Your task to perform on an android device: Show me popular games on the Play Store Image 0: 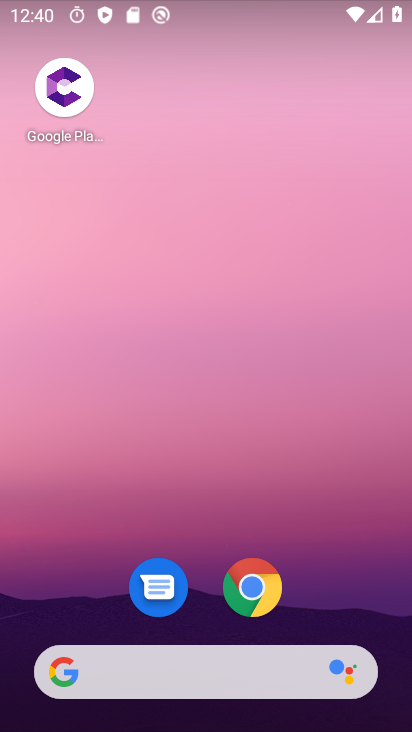
Step 0: drag from (201, 726) to (199, 120)
Your task to perform on an android device: Show me popular games on the Play Store Image 1: 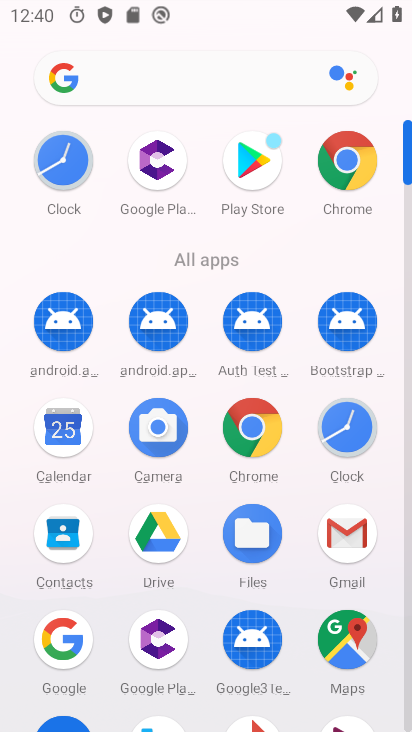
Step 1: click (252, 157)
Your task to perform on an android device: Show me popular games on the Play Store Image 2: 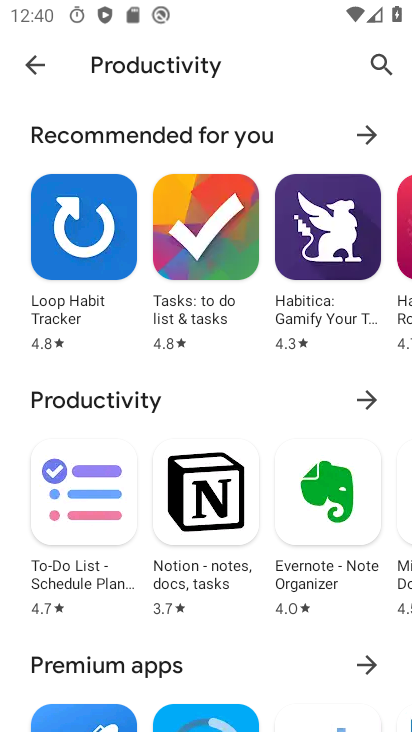
Step 2: click (34, 66)
Your task to perform on an android device: Show me popular games on the Play Store Image 3: 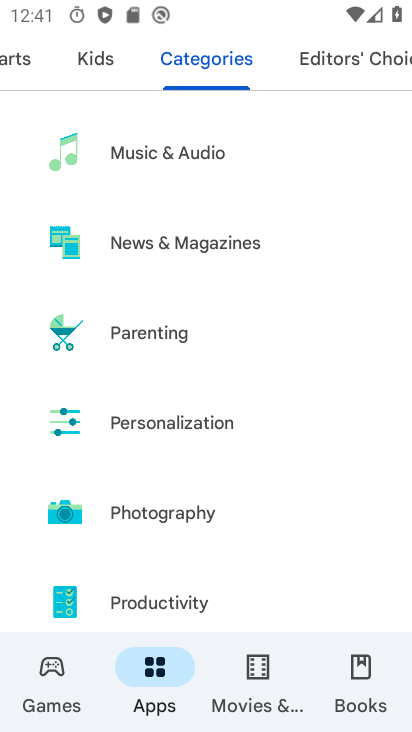
Step 3: click (49, 678)
Your task to perform on an android device: Show me popular games on the Play Store Image 4: 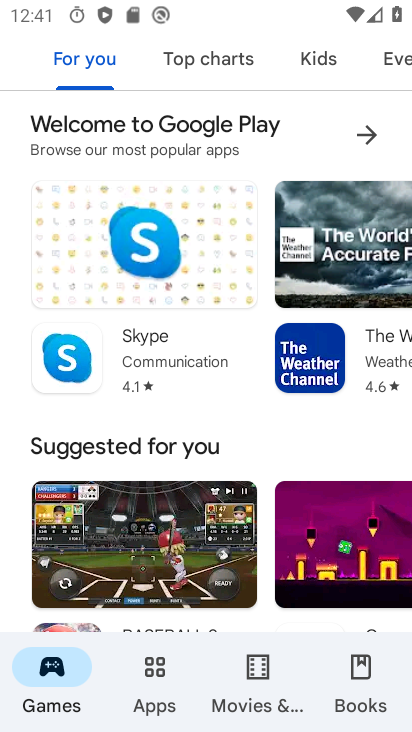
Step 4: drag from (187, 549) to (174, 174)
Your task to perform on an android device: Show me popular games on the Play Store Image 5: 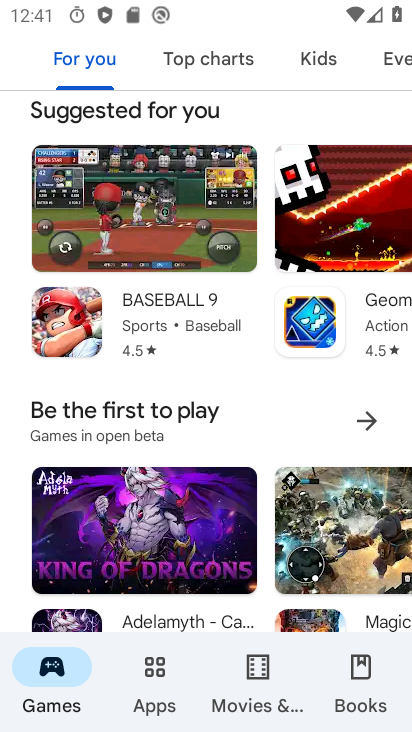
Step 5: drag from (195, 561) to (195, 258)
Your task to perform on an android device: Show me popular games on the Play Store Image 6: 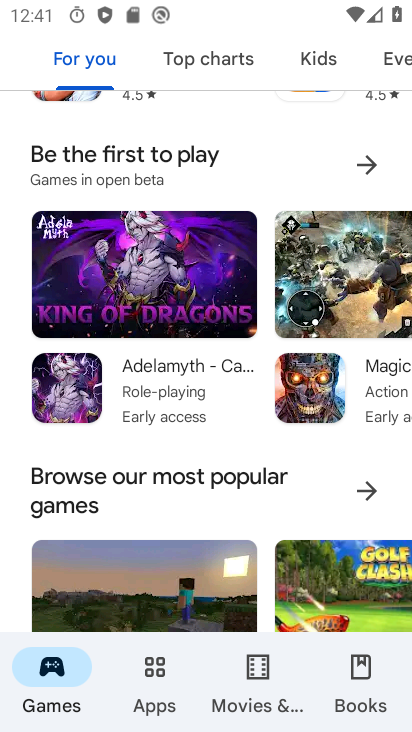
Step 6: click (368, 486)
Your task to perform on an android device: Show me popular games on the Play Store Image 7: 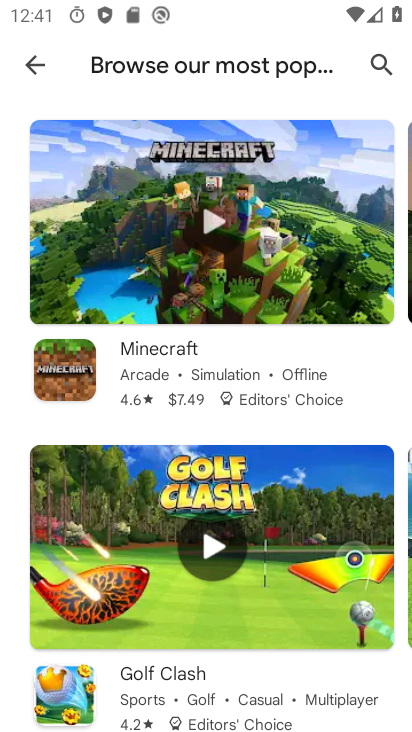
Step 7: task complete